Your task to perform on an android device: Go to network settings Image 0: 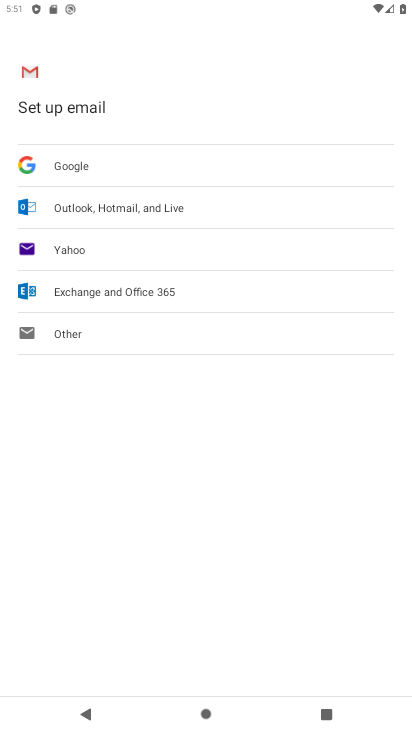
Step 0: press home button
Your task to perform on an android device: Go to network settings Image 1: 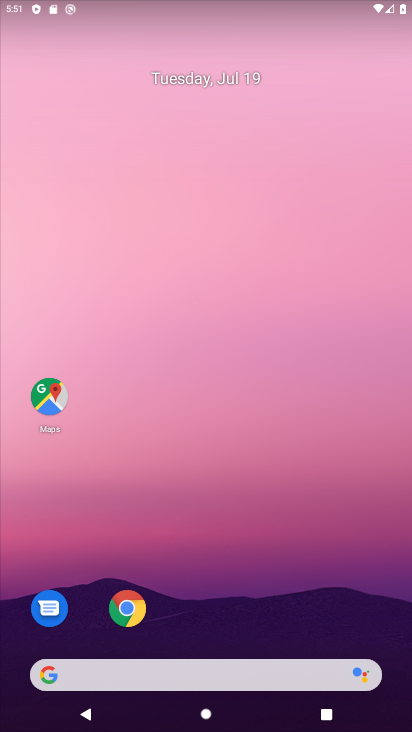
Step 1: drag from (217, 631) to (274, 34)
Your task to perform on an android device: Go to network settings Image 2: 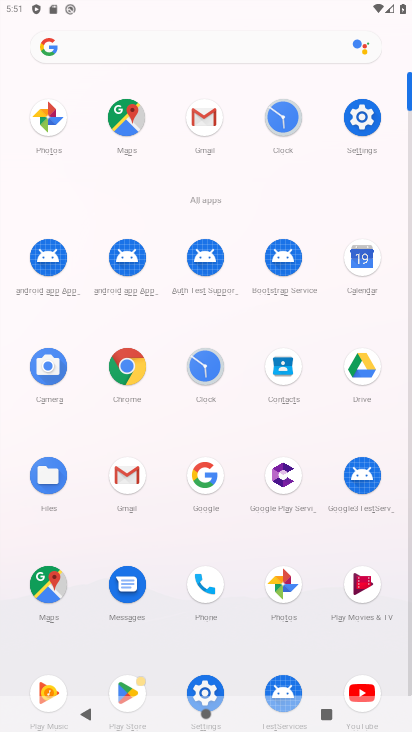
Step 2: click (359, 112)
Your task to perform on an android device: Go to network settings Image 3: 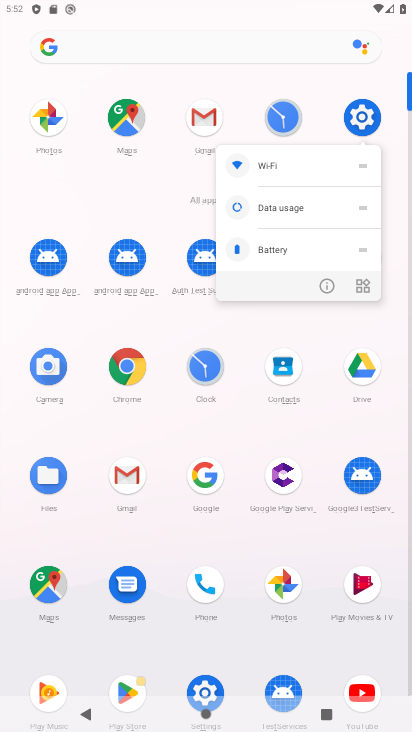
Step 3: click (360, 117)
Your task to perform on an android device: Go to network settings Image 4: 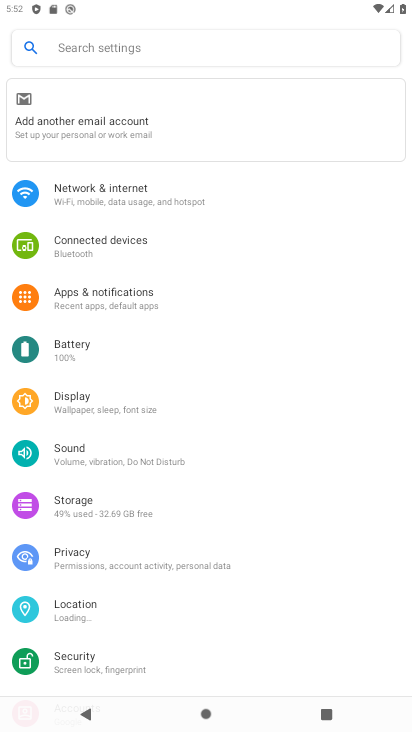
Step 4: click (156, 187)
Your task to perform on an android device: Go to network settings Image 5: 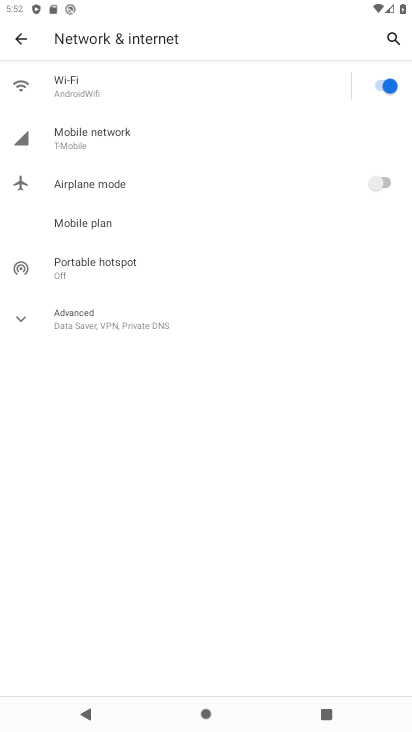
Step 5: click (19, 312)
Your task to perform on an android device: Go to network settings Image 6: 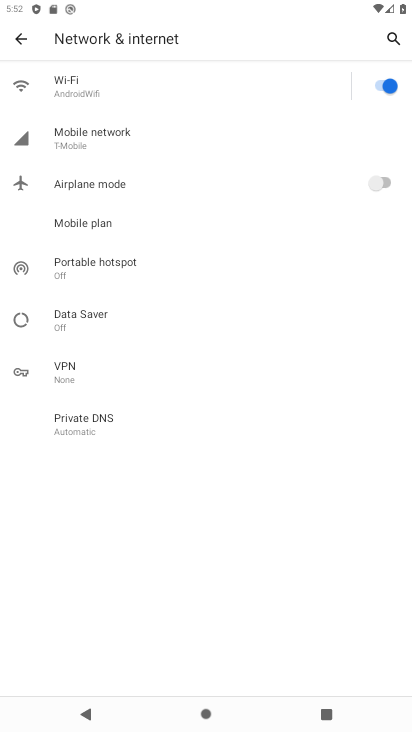
Step 6: task complete